Your task to perform on an android device: What is the recent news? Image 0: 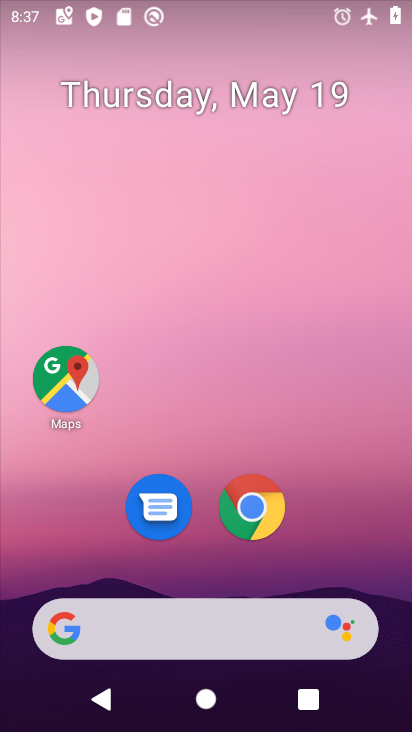
Step 0: drag from (1, 257) to (359, 155)
Your task to perform on an android device: What is the recent news? Image 1: 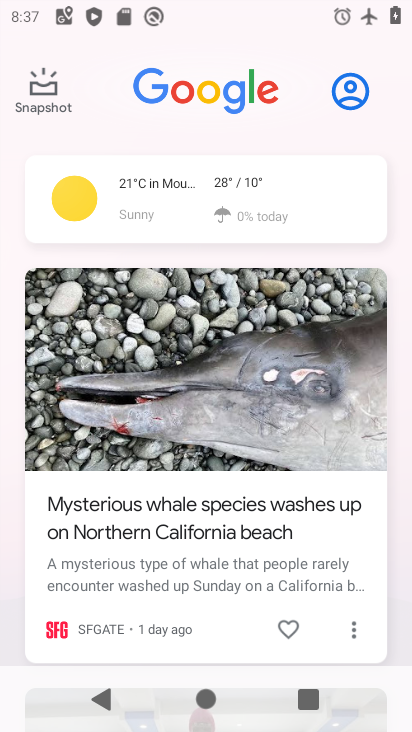
Step 1: task complete